Your task to perform on an android device: Open the web browser Image 0: 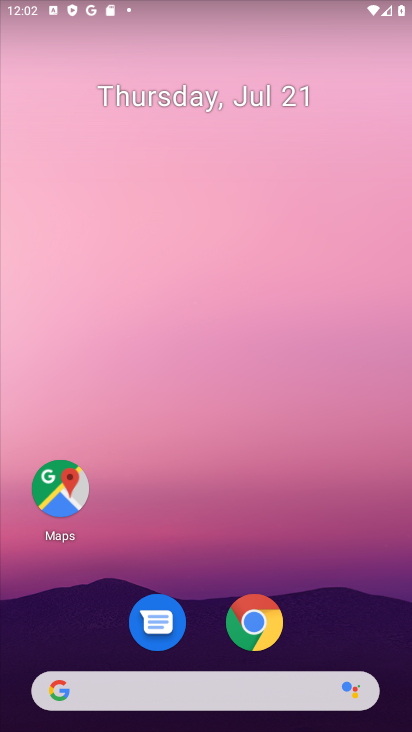
Step 0: press home button
Your task to perform on an android device: Open the web browser Image 1: 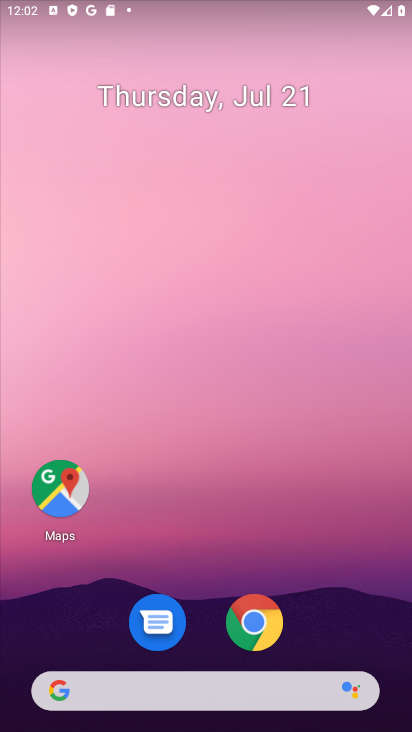
Step 1: click (272, 625)
Your task to perform on an android device: Open the web browser Image 2: 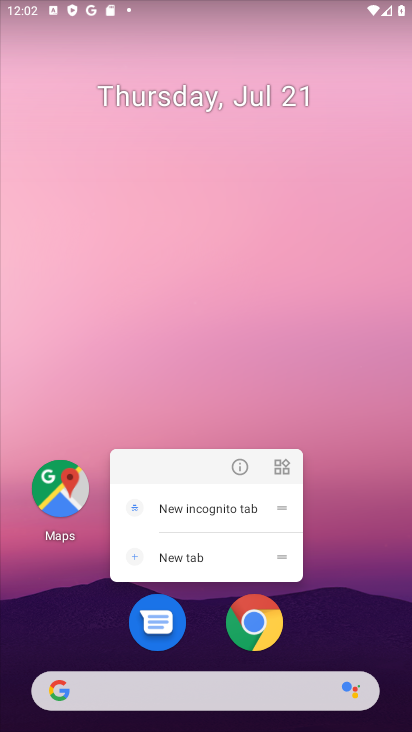
Step 2: click (257, 616)
Your task to perform on an android device: Open the web browser Image 3: 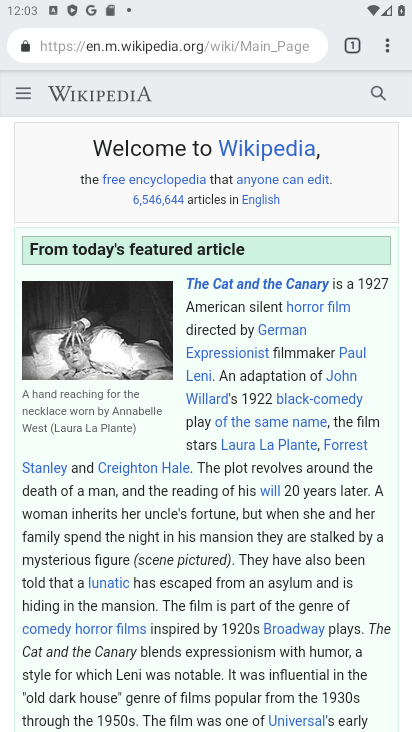
Step 3: click (218, 46)
Your task to perform on an android device: Open the web browser Image 4: 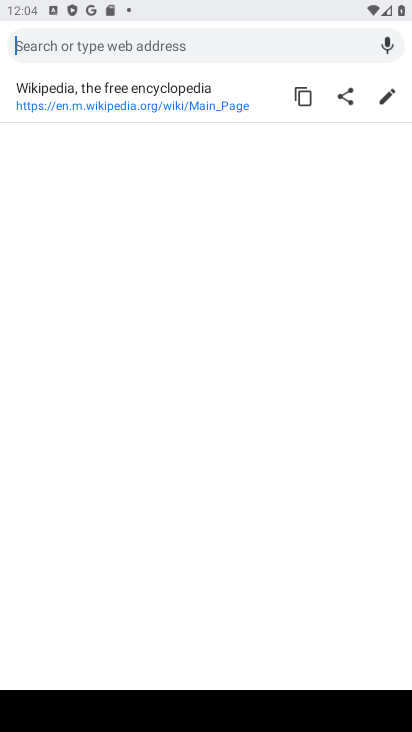
Step 4: task complete